Your task to perform on an android device: turn off location history Image 0: 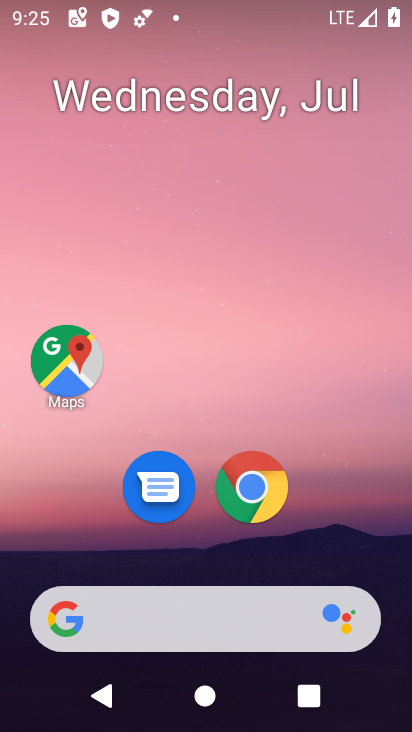
Step 0: drag from (159, 583) to (168, 49)
Your task to perform on an android device: turn off location history Image 1: 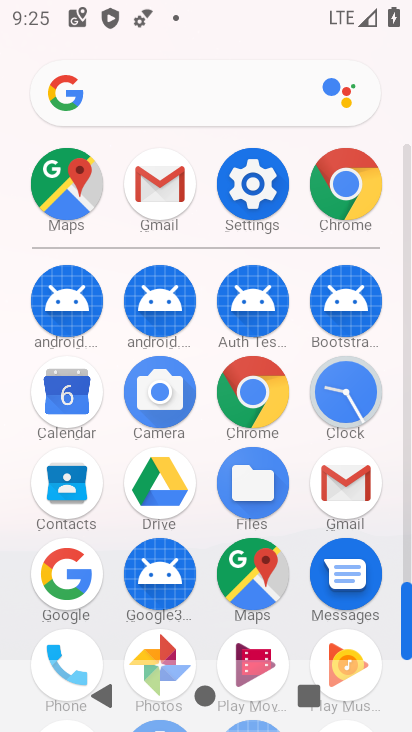
Step 1: click (244, 188)
Your task to perform on an android device: turn off location history Image 2: 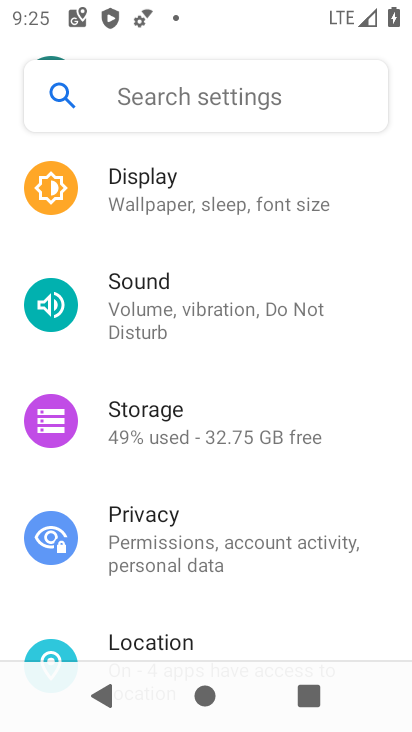
Step 2: click (151, 636)
Your task to perform on an android device: turn off location history Image 3: 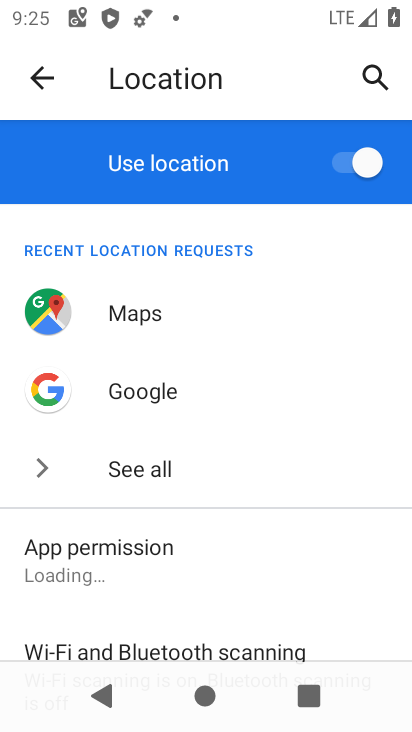
Step 3: drag from (151, 636) to (116, 391)
Your task to perform on an android device: turn off location history Image 4: 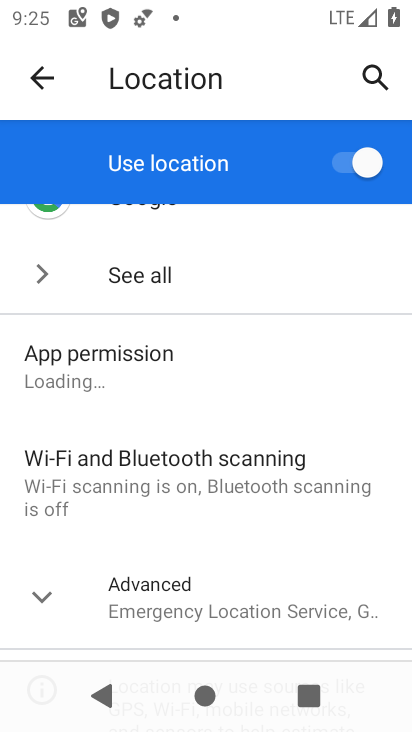
Step 4: click (107, 629)
Your task to perform on an android device: turn off location history Image 5: 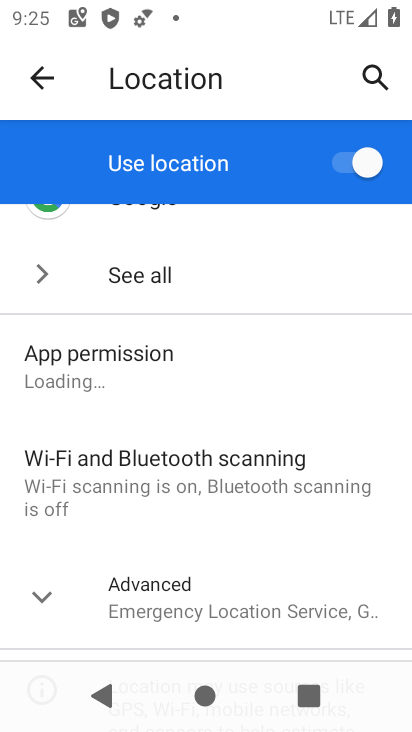
Step 5: click (107, 629)
Your task to perform on an android device: turn off location history Image 6: 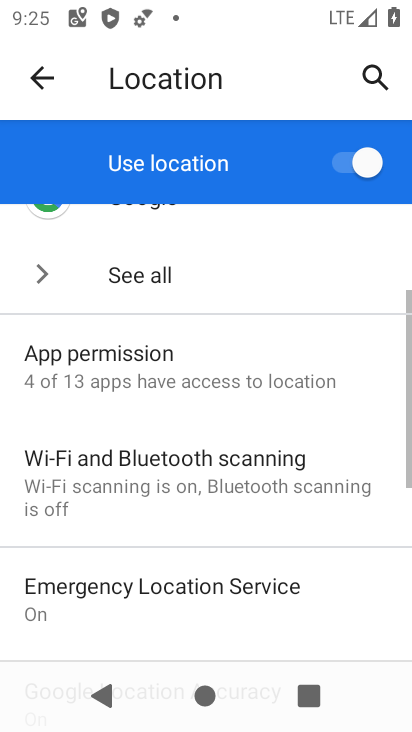
Step 6: drag from (107, 629) to (107, 125)
Your task to perform on an android device: turn off location history Image 7: 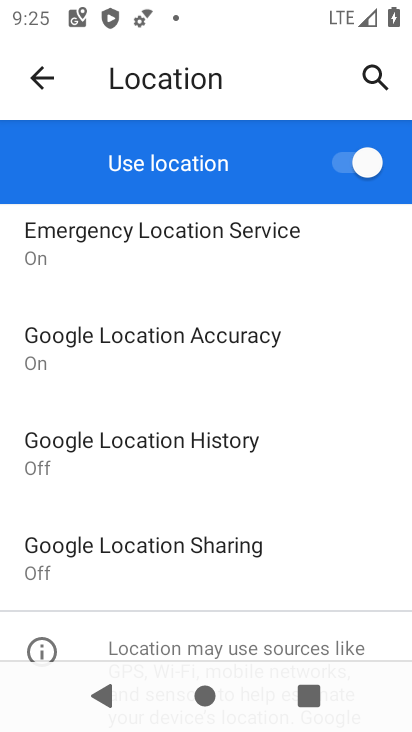
Step 7: click (96, 465)
Your task to perform on an android device: turn off location history Image 8: 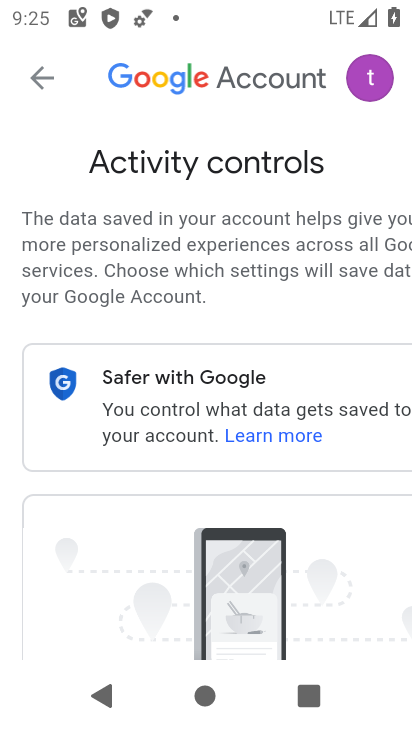
Step 8: task complete